Your task to perform on an android device: Search for "panasonic triple a" on walmart.com, select the first entry, add it to the cart, then select checkout. Image 0: 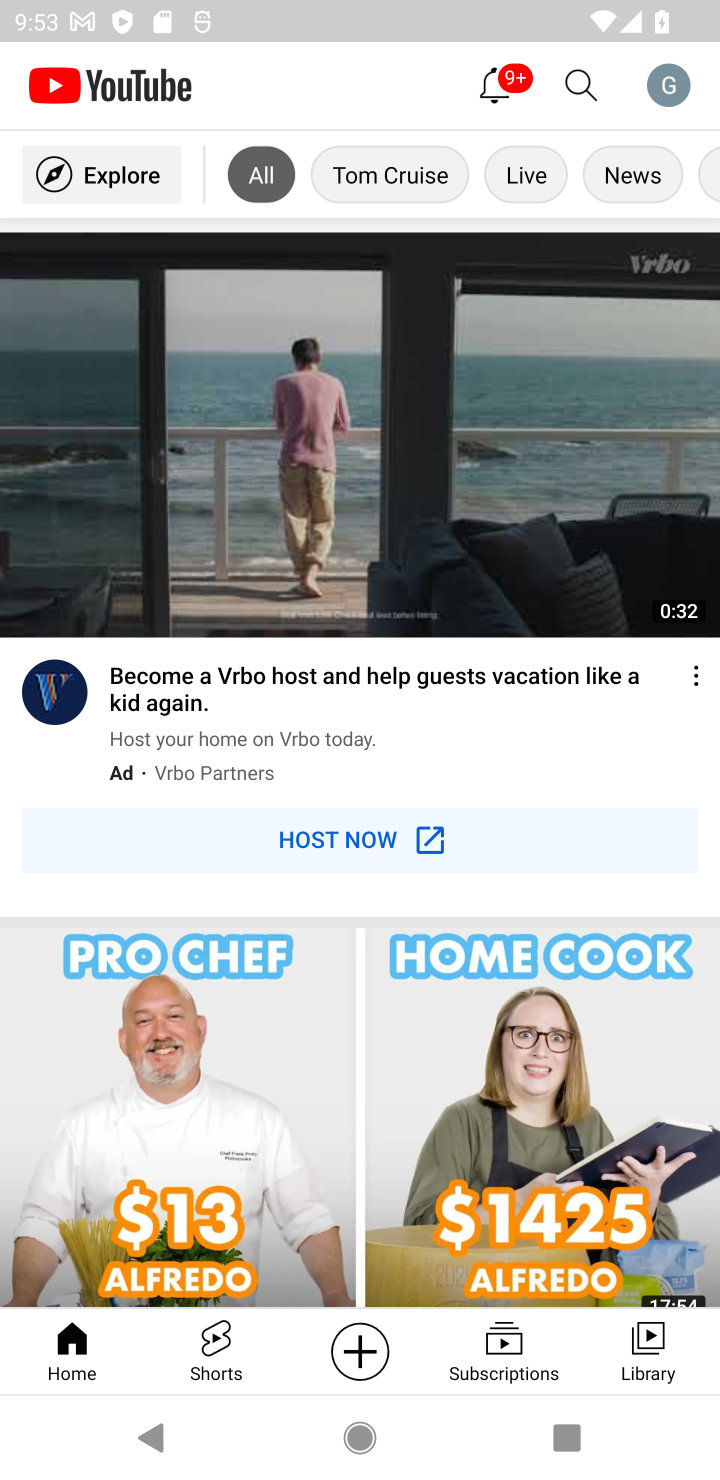
Step 0: press home button
Your task to perform on an android device: Search for "panasonic triple a" on walmart.com, select the first entry, add it to the cart, then select checkout. Image 1: 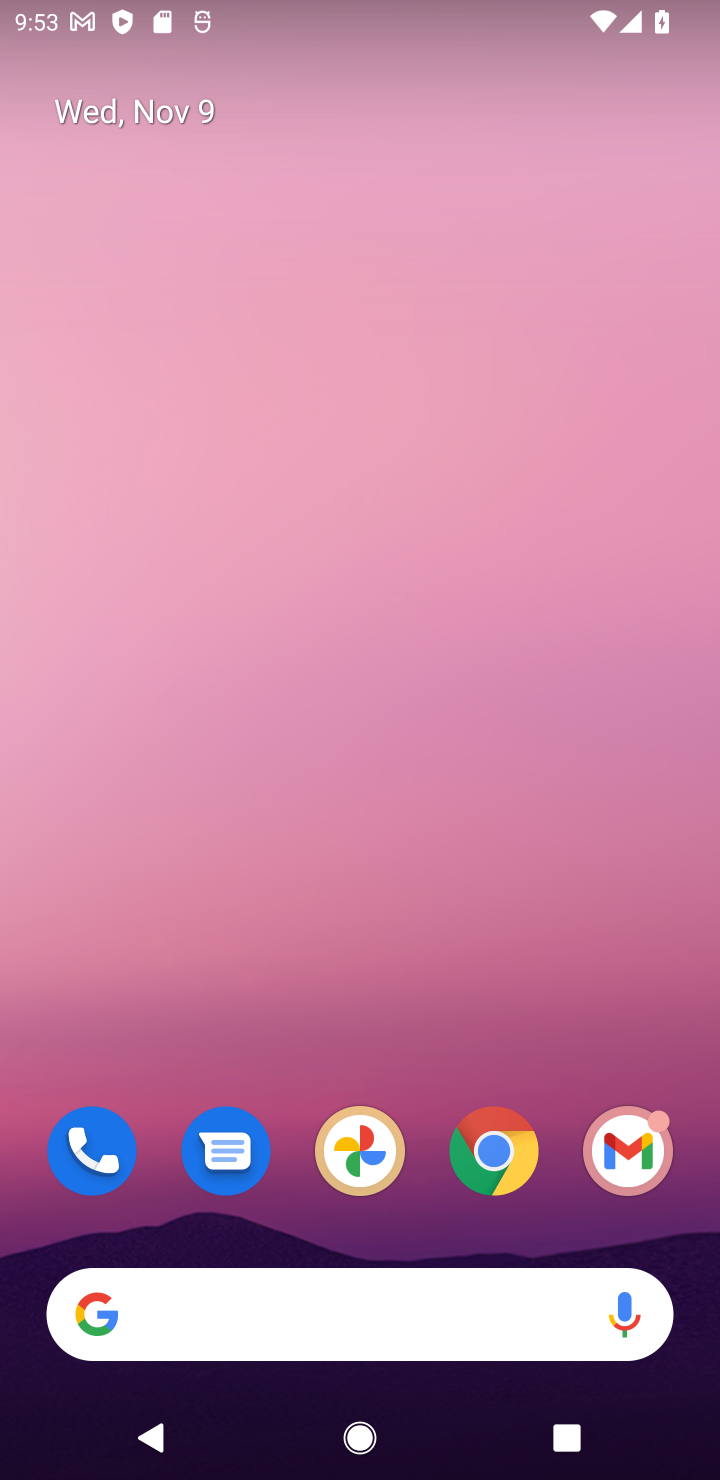
Step 1: click (472, 1158)
Your task to perform on an android device: Search for "panasonic triple a" on walmart.com, select the first entry, add it to the cart, then select checkout. Image 2: 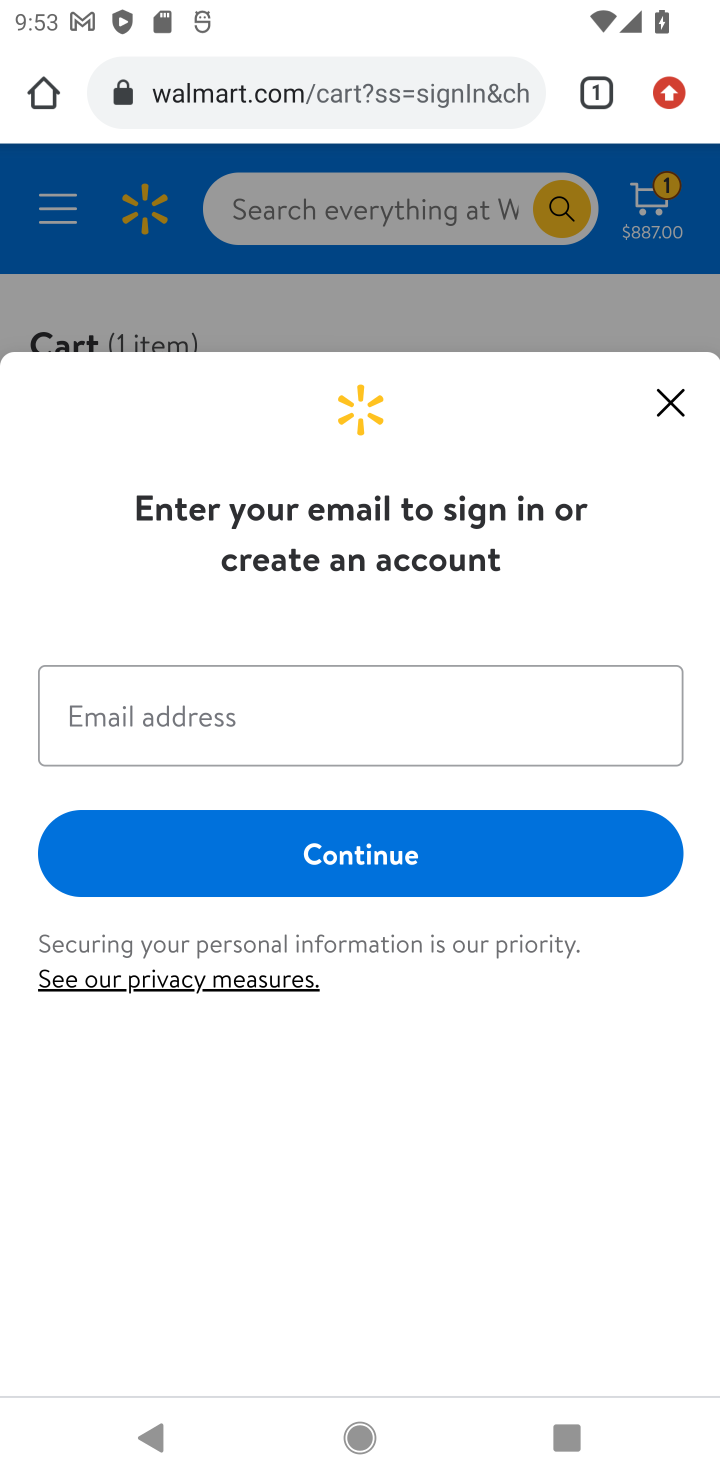
Step 2: click (676, 398)
Your task to perform on an android device: Search for "panasonic triple a" on walmart.com, select the first entry, add it to the cart, then select checkout. Image 3: 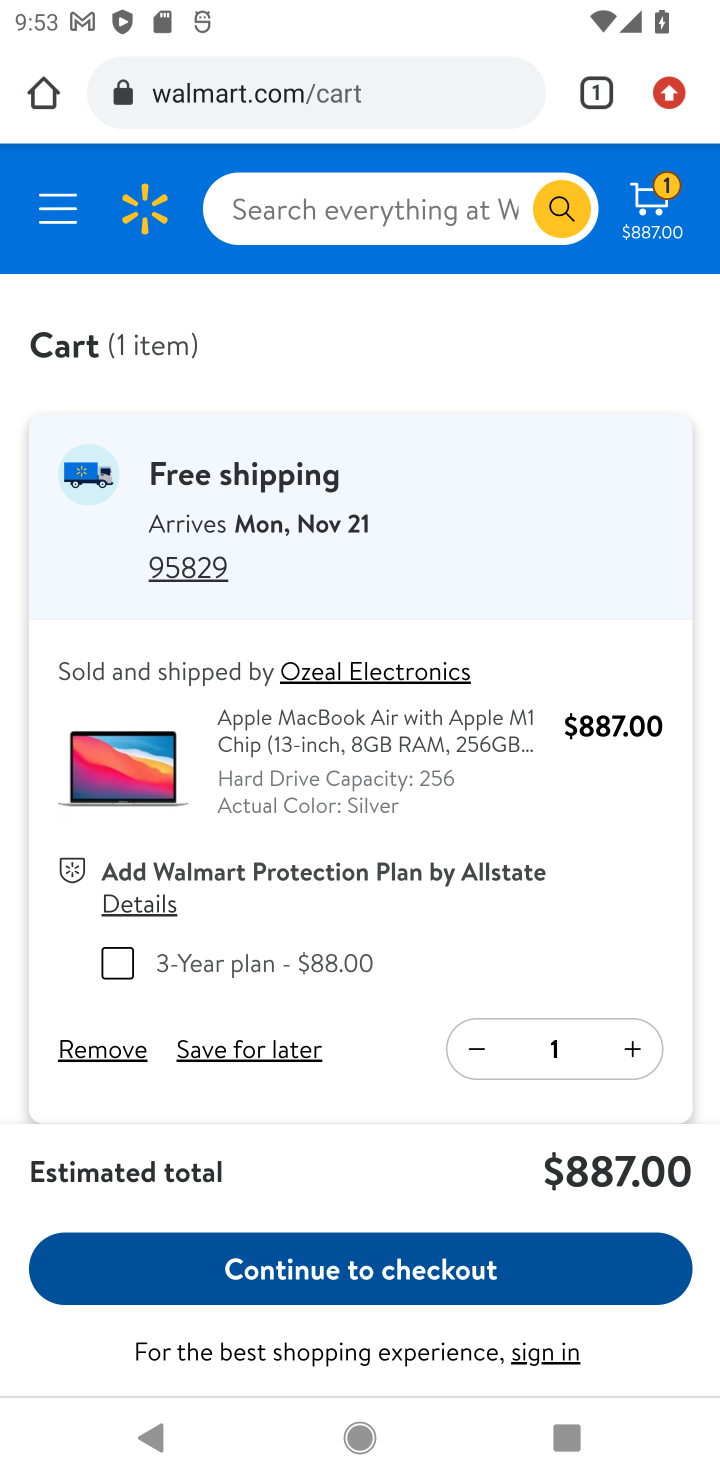
Step 3: click (351, 209)
Your task to perform on an android device: Search for "panasonic triple a" on walmart.com, select the first entry, add it to the cart, then select checkout. Image 4: 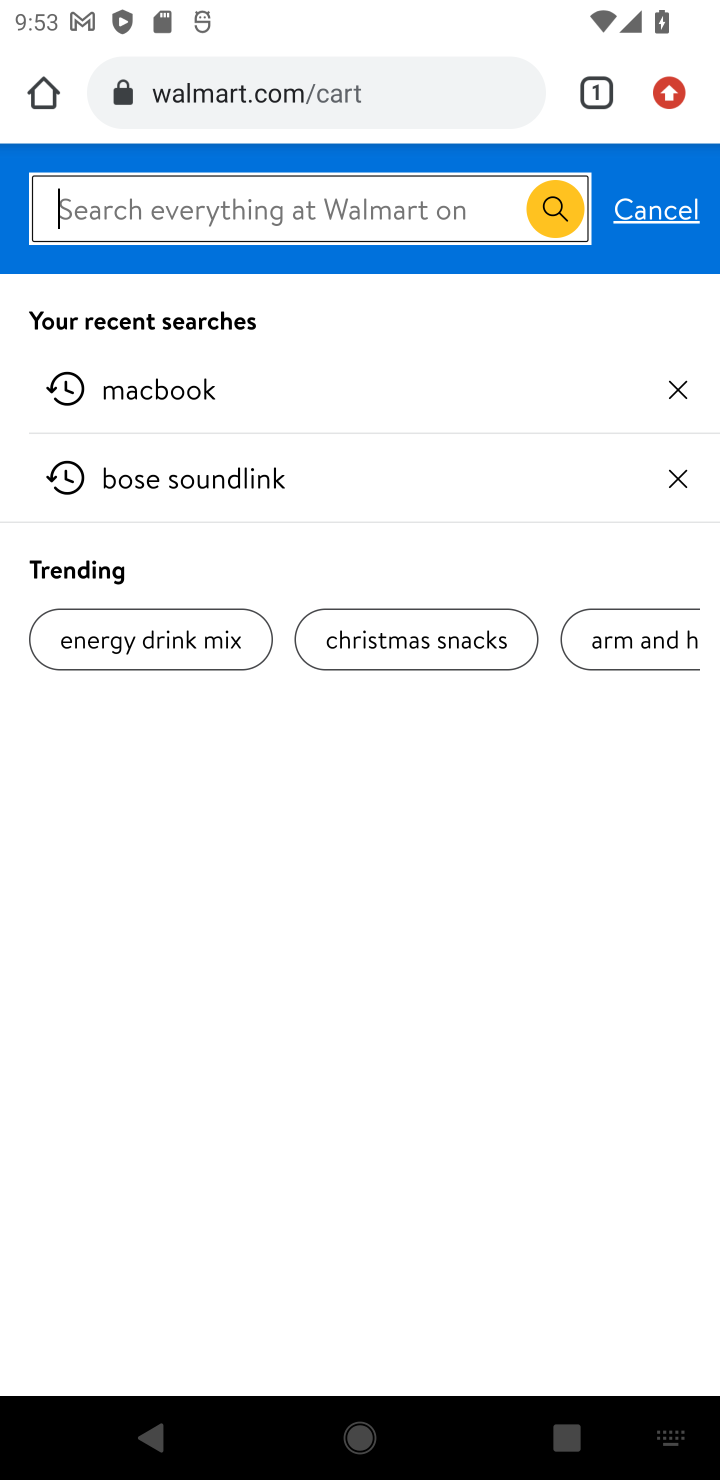
Step 4: type "panasonic triple a"
Your task to perform on an android device: Search for "panasonic triple a" on walmart.com, select the first entry, add it to the cart, then select checkout. Image 5: 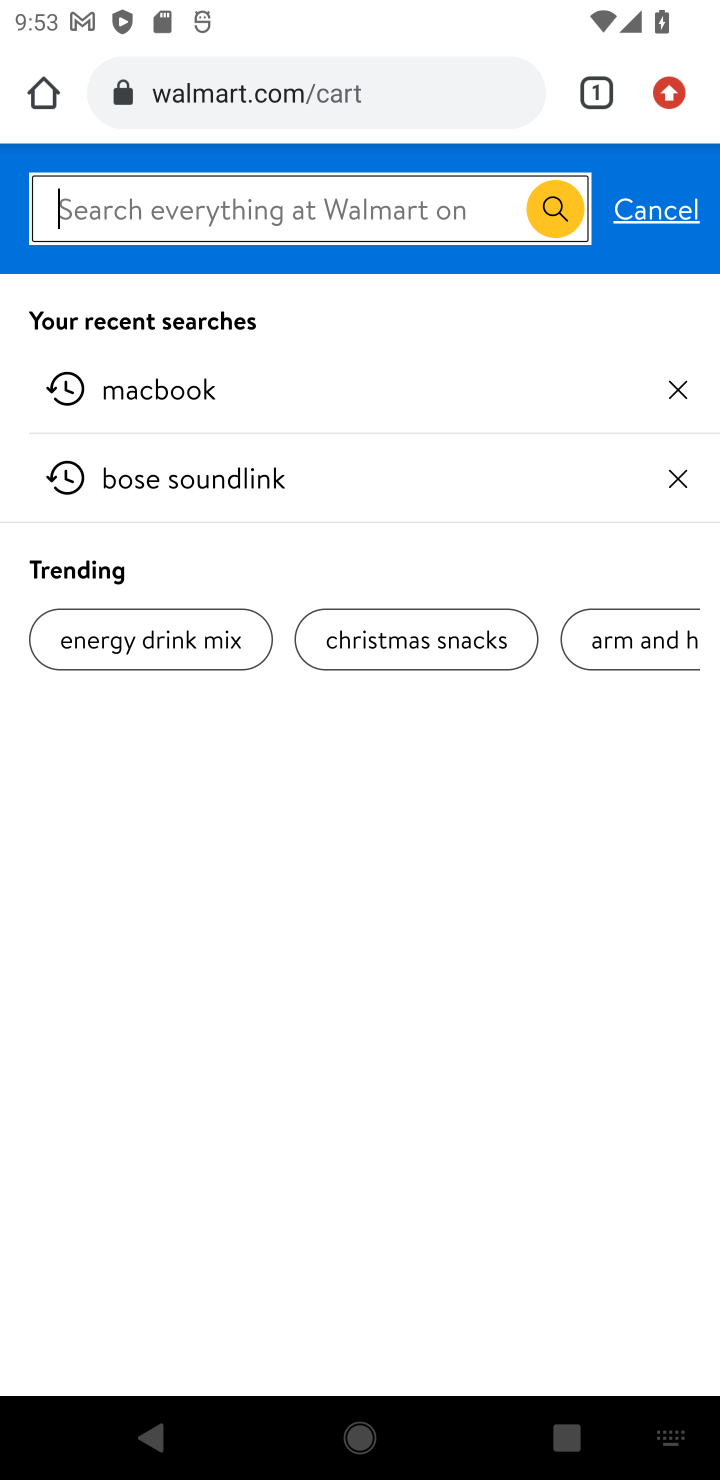
Step 5: press enter
Your task to perform on an android device: Search for "panasonic triple a" on walmart.com, select the first entry, add it to the cart, then select checkout. Image 6: 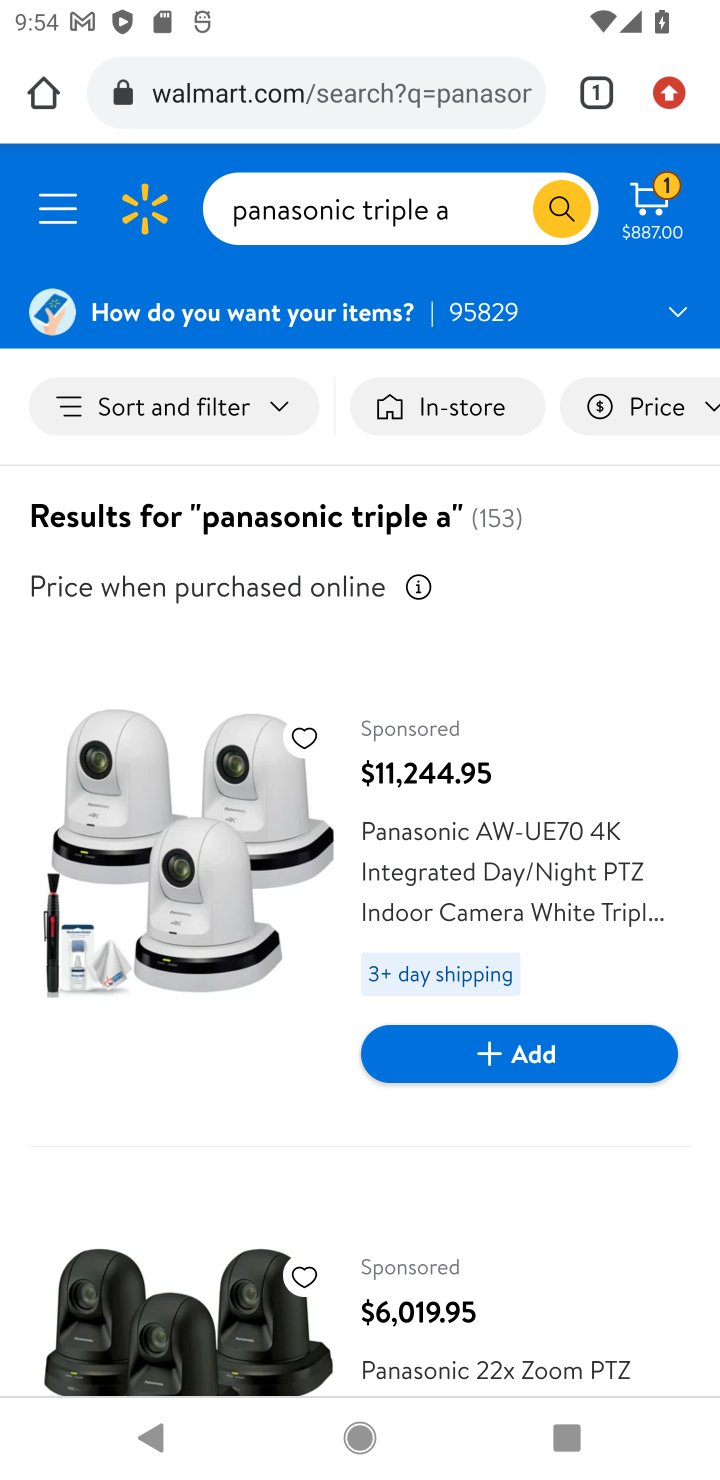
Step 6: drag from (613, 1265) to (604, 585)
Your task to perform on an android device: Search for "panasonic triple a" on walmart.com, select the first entry, add it to the cart, then select checkout. Image 7: 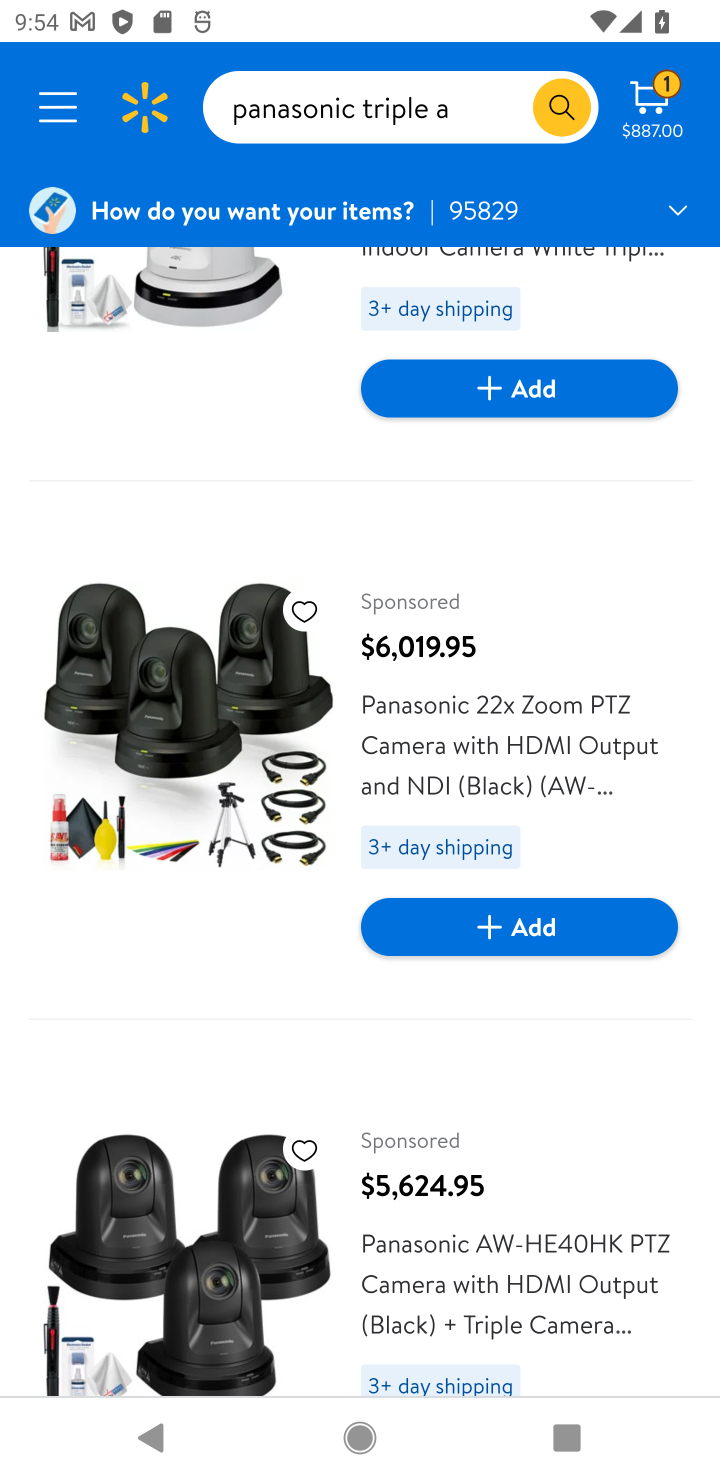
Step 7: drag from (630, 1161) to (673, 468)
Your task to perform on an android device: Search for "panasonic triple a" on walmart.com, select the first entry, add it to the cart, then select checkout. Image 8: 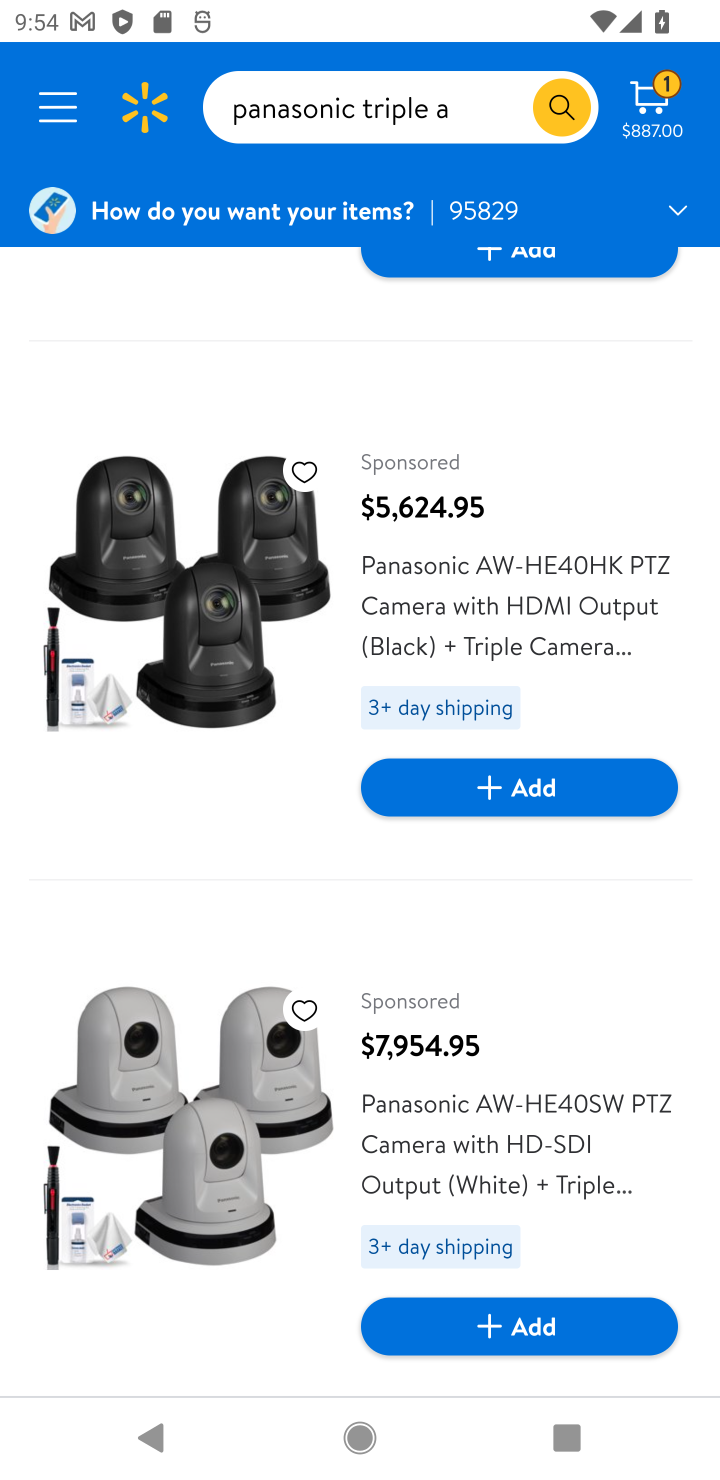
Step 8: drag from (662, 1102) to (680, 556)
Your task to perform on an android device: Search for "panasonic triple a" on walmart.com, select the first entry, add it to the cart, then select checkout. Image 9: 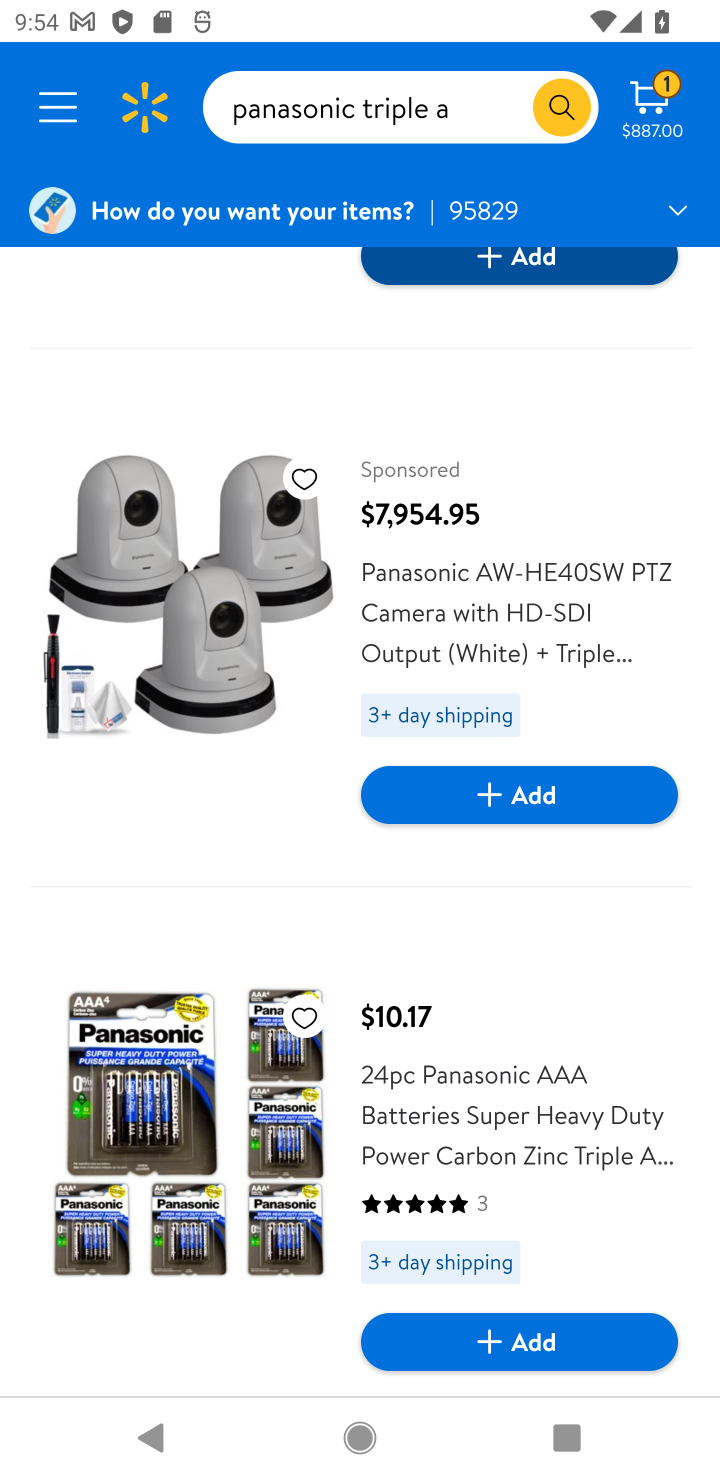
Step 9: click (155, 1148)
Your task to perform on an android device: Search for "panasonic triple a" on walmart.com, select the first entry, add it to the cart, then select checkout. Image 10: 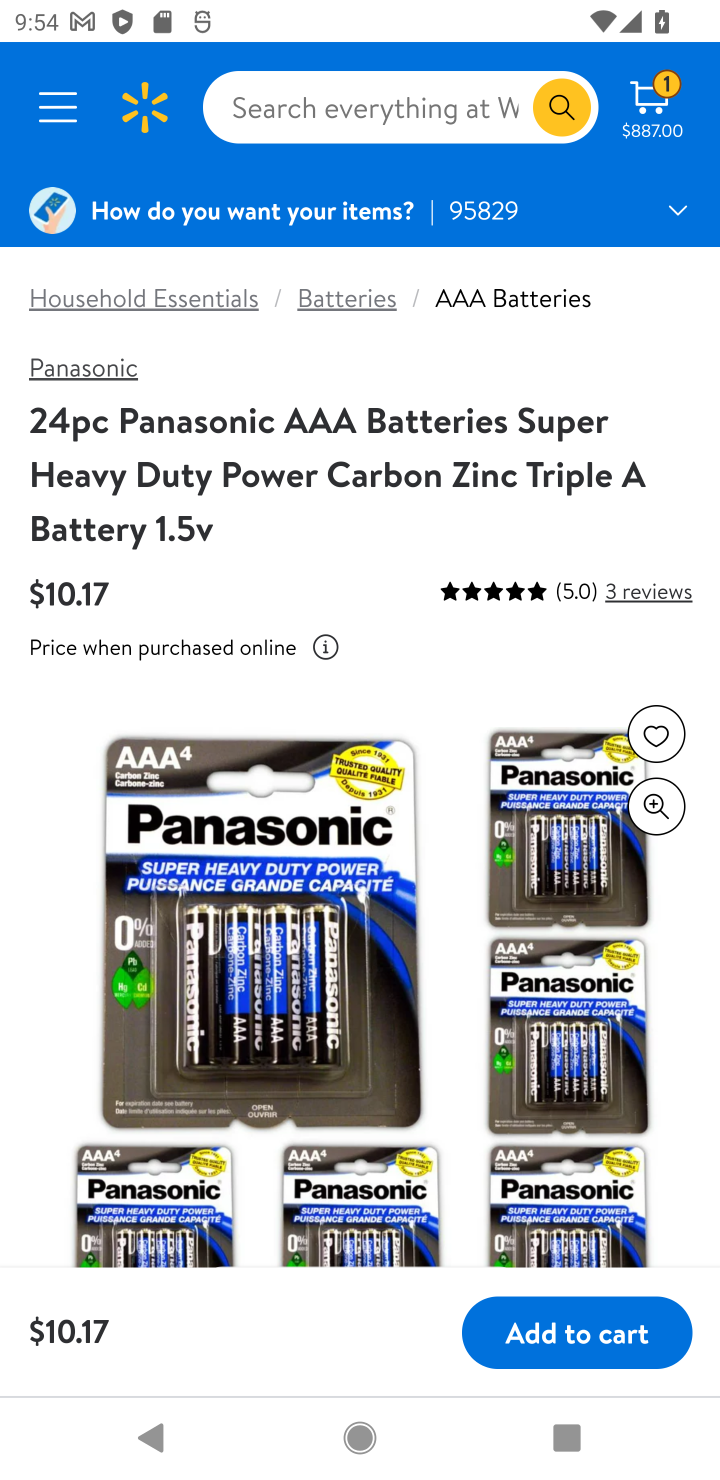
Step 10: click (592, 1327)
Your task to perform on an android device: Search for "panasonic triple a" on walmart.com, select the first entry, add it to the cart, then select checkout. Image 11: 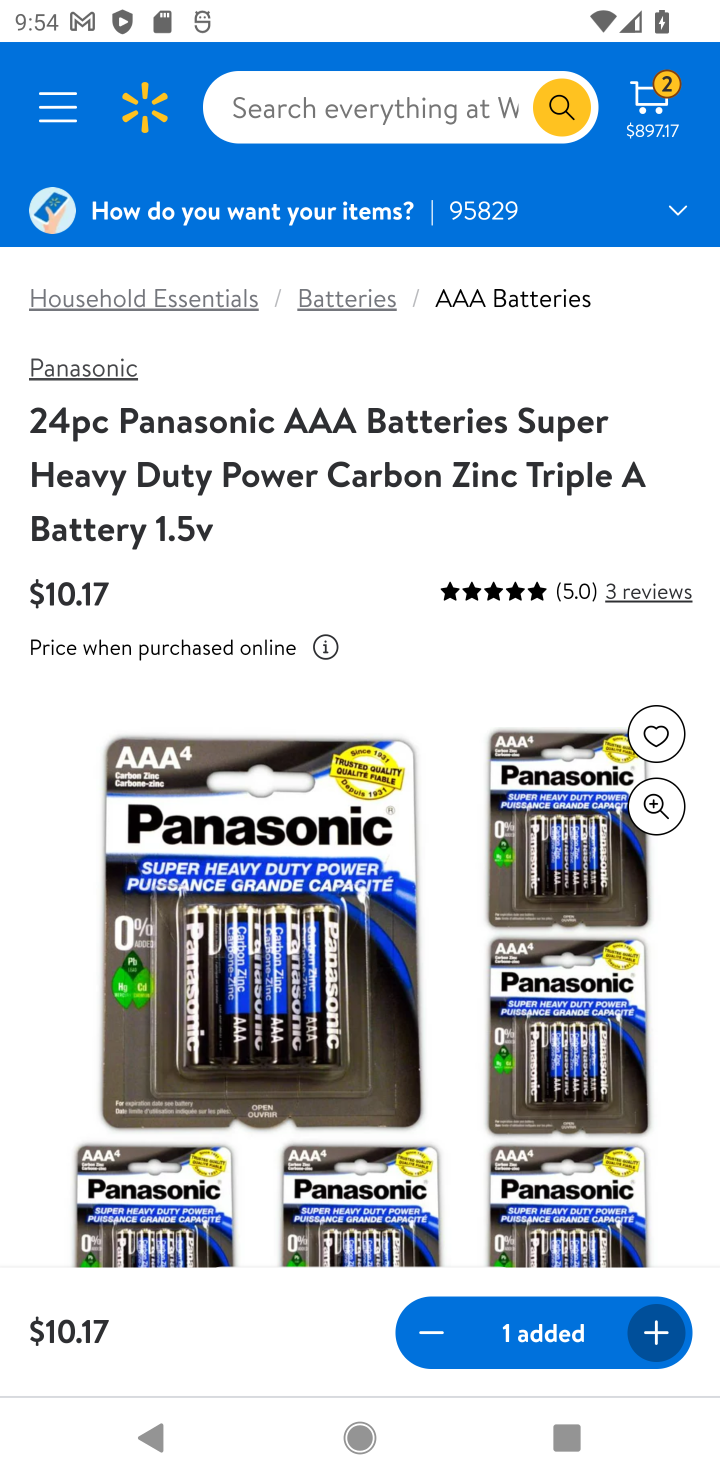
Step 11: click (648, 104)
Your task to perform on an android device: Search for "panasonic triple a" on walmart.com, select the first entry, add it to the cart, then select checkout. Image 12: 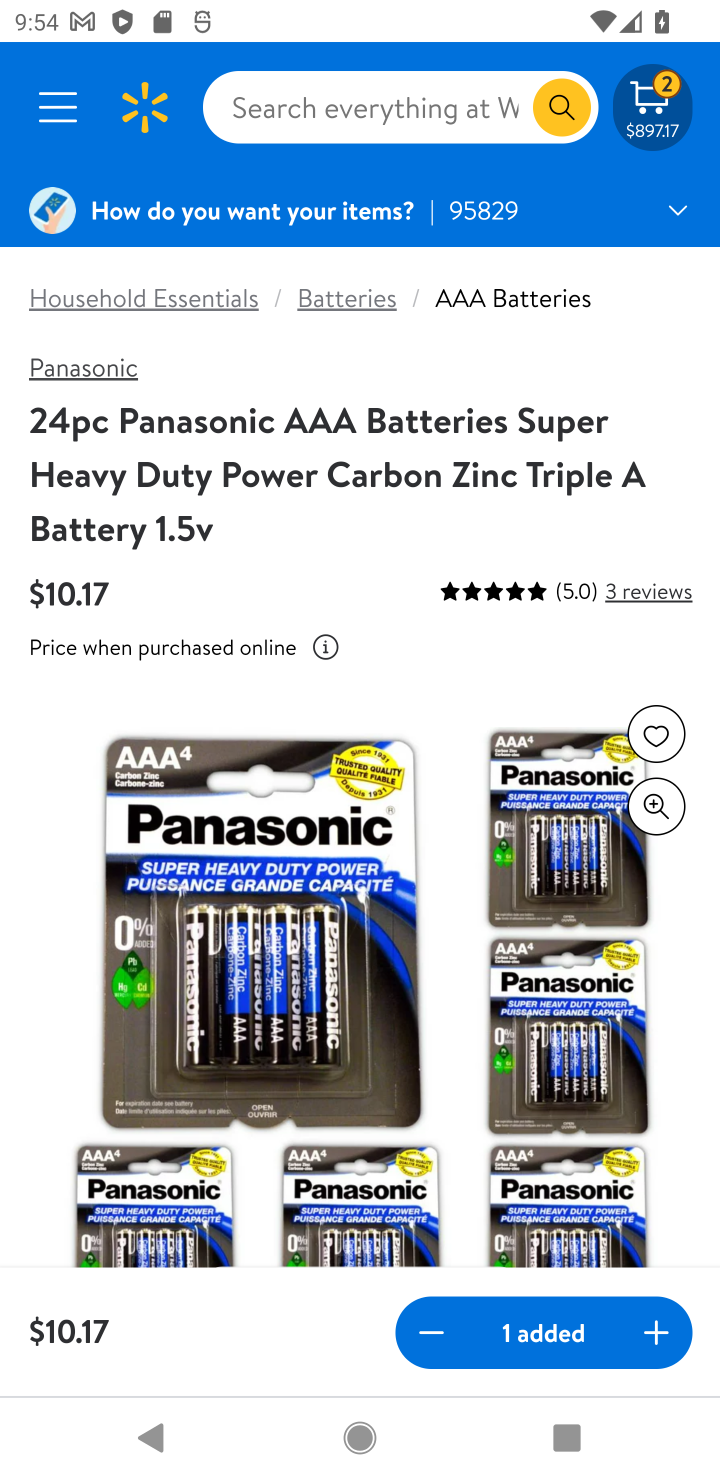
Step 12: click (659, 111)
Your task to perform on an android device: Search for "panasonic triple a" on walmart.com, select the first entry, add it to the cart, then select checkout. Image 13: 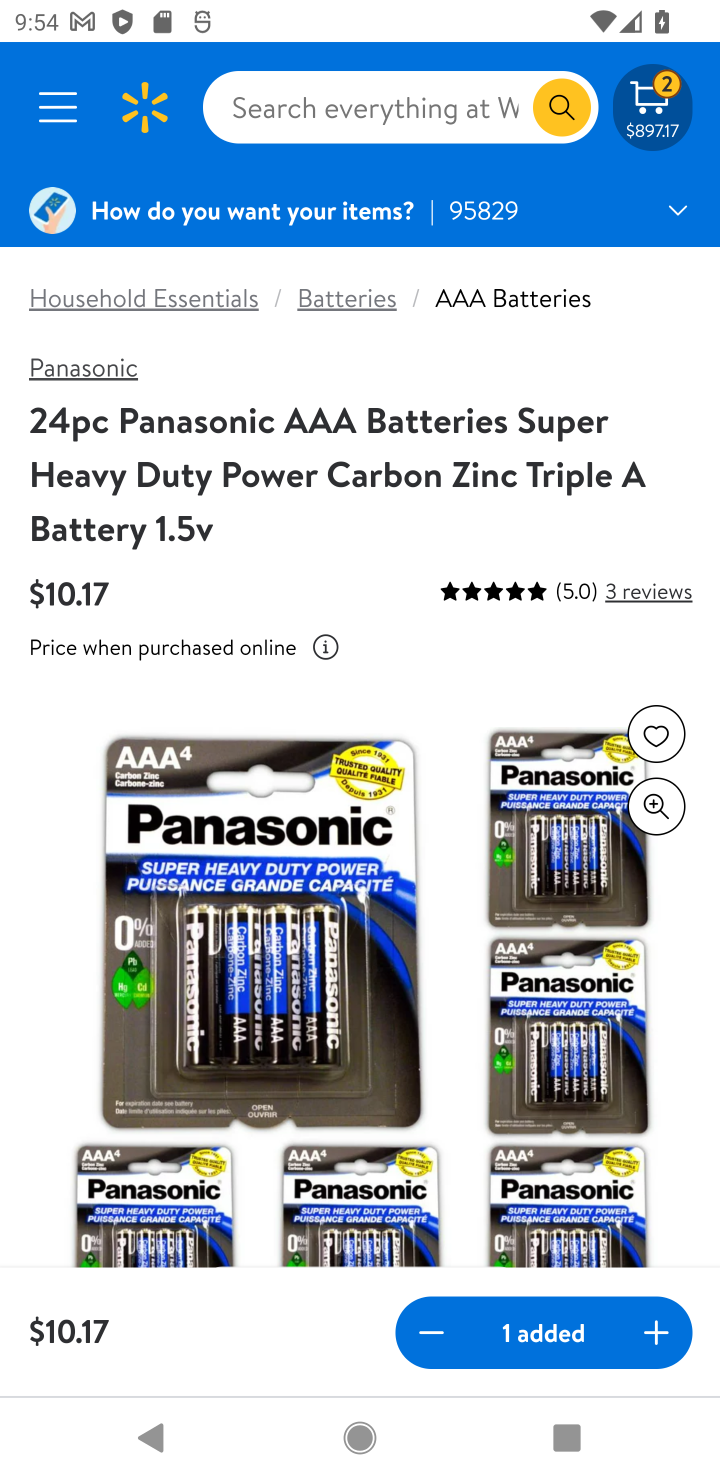
Step 13: click (658, 110)
Your task to perform on an android device: Search for "panasonic triple a" on walmart.com, select the first entry, add it to the cart, then select checkout. Image 14: 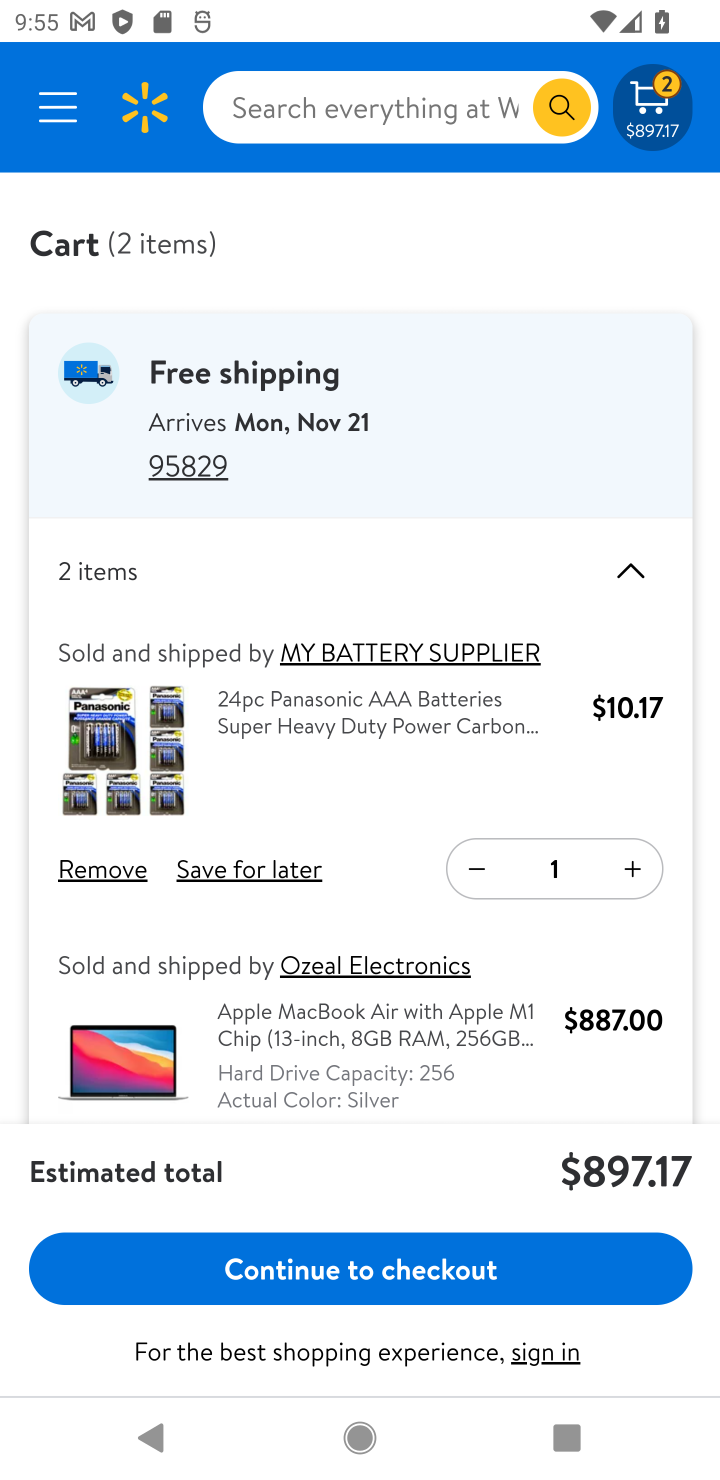
Step 14: click (460, 1263)
Your task to perform on an android device: Search for "panasonic triple a" on walmart.com, select the first entry, add it to the cart, then select checkout. Image 15: 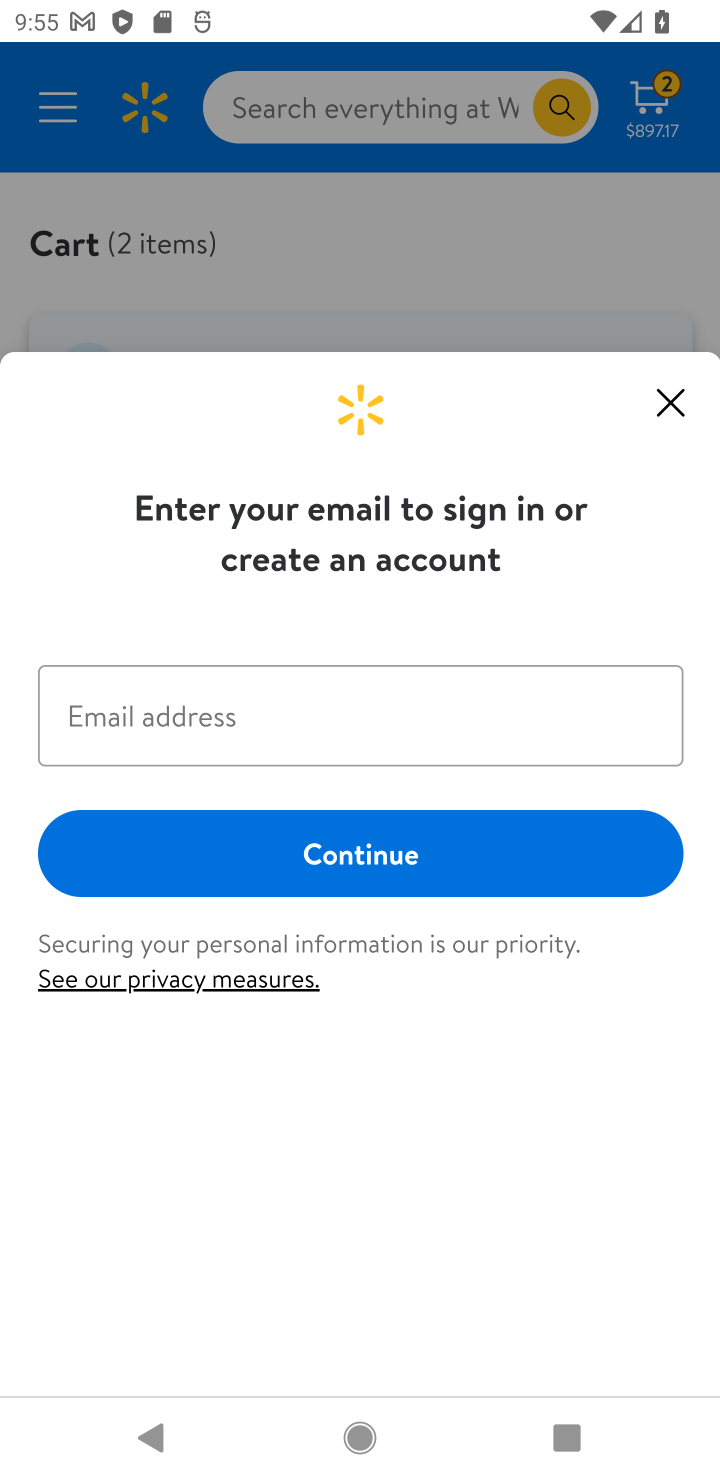
Step 15: task complete